Your task to perform on an android device: open device folders in google photos Image 0: 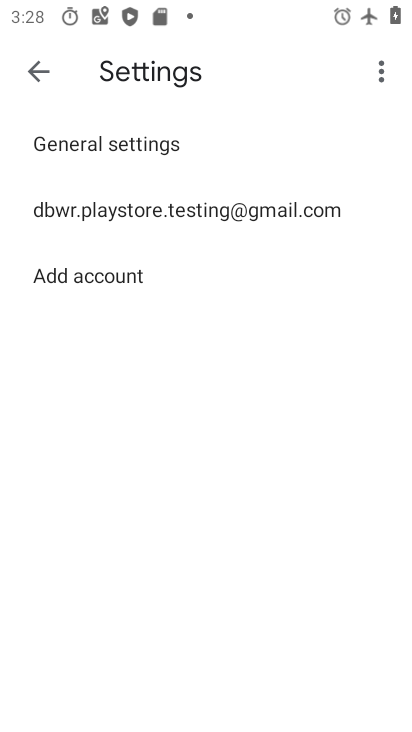
Step 0: press home button
Your task to perform on an android device: open device folders in google photos Image 1: 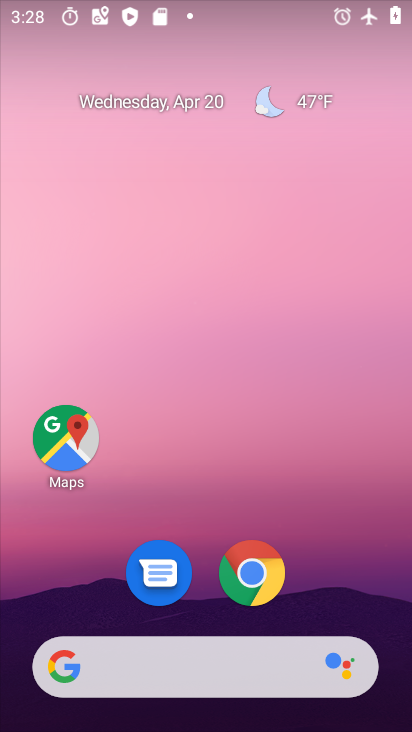
Step 1: drag from (210, 728) to (182, 130)
Your task to perform on an android device: open device folders in google photos Image 2: 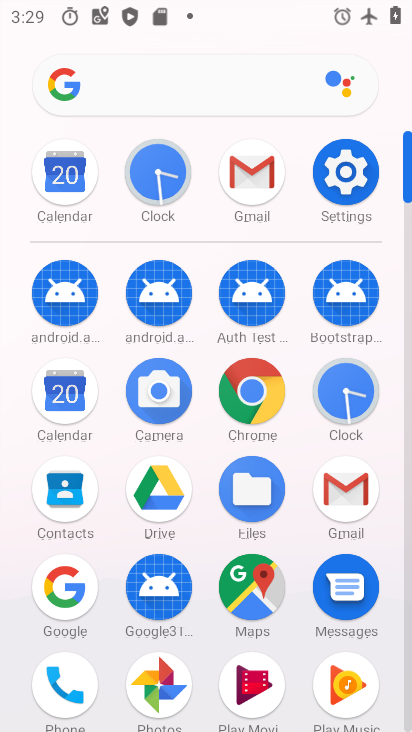
Step 2: click (157, 678)
Your task to perform on an android device: open device folders in google photos Image 3: 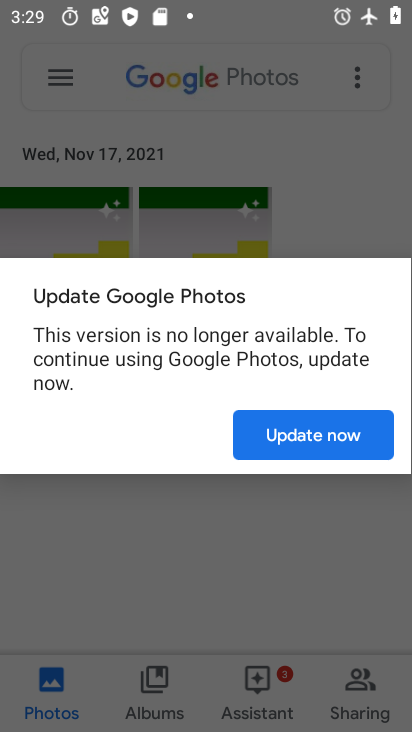
Step 3: click (343, 441)
Your task to perform on an android device: open device folders in google photos Image 4: 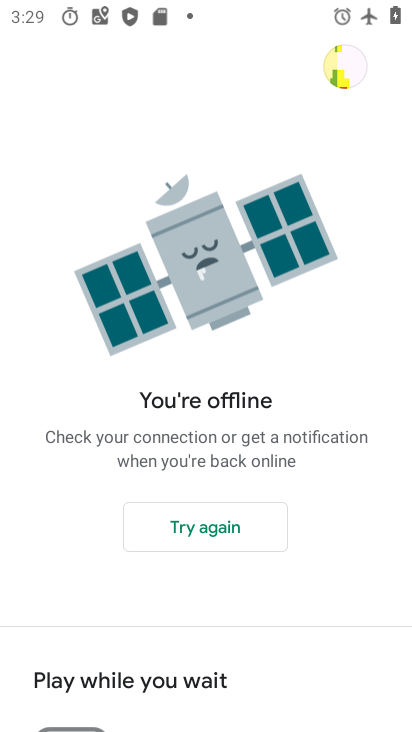
Step 4: click (202, 524)
Your task to perform on an android device: open device folders in google photos Image 5: 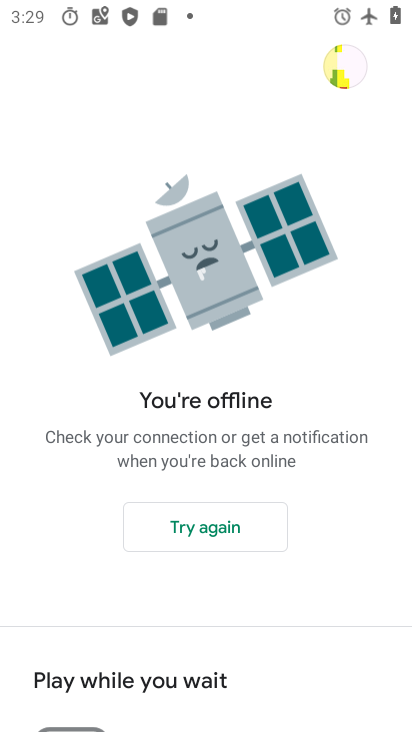
Step 5: task complete